Your task to perform on an android device: Open the map Image 0: 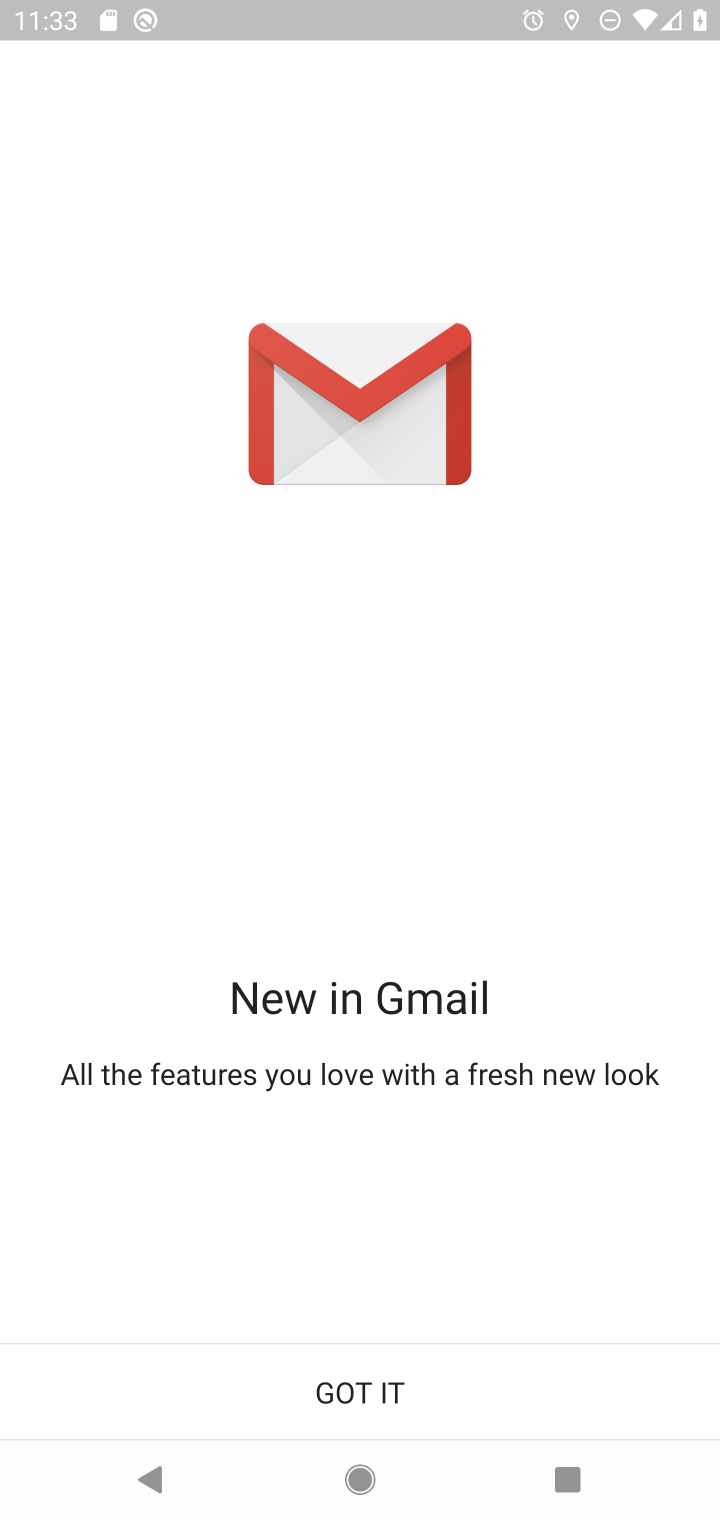
Step 0: press back button
Your task to perform on an android device: Open the map Image 1: 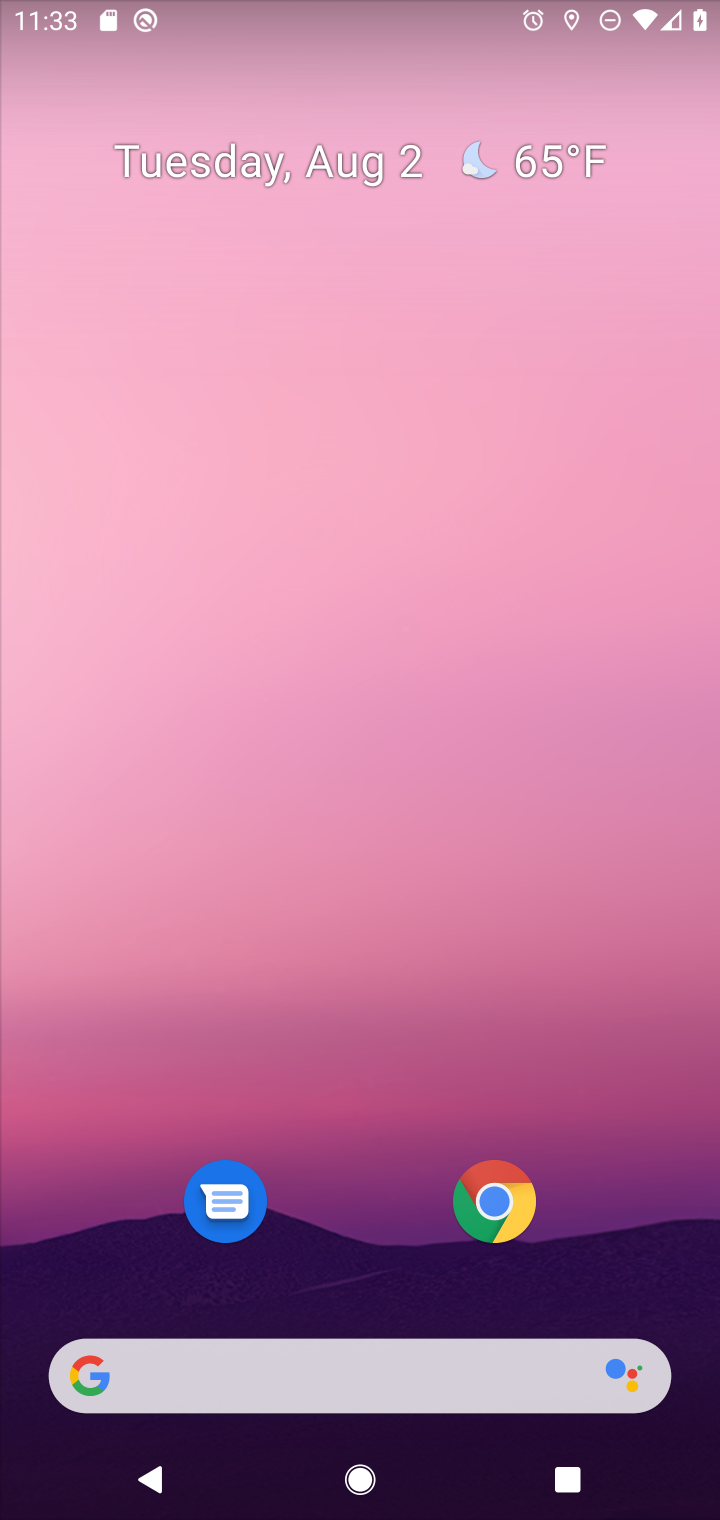
Step 1: drag from (414, 1334) to (345, 238)
Your task to perform on an android device: Open the map Image 2: 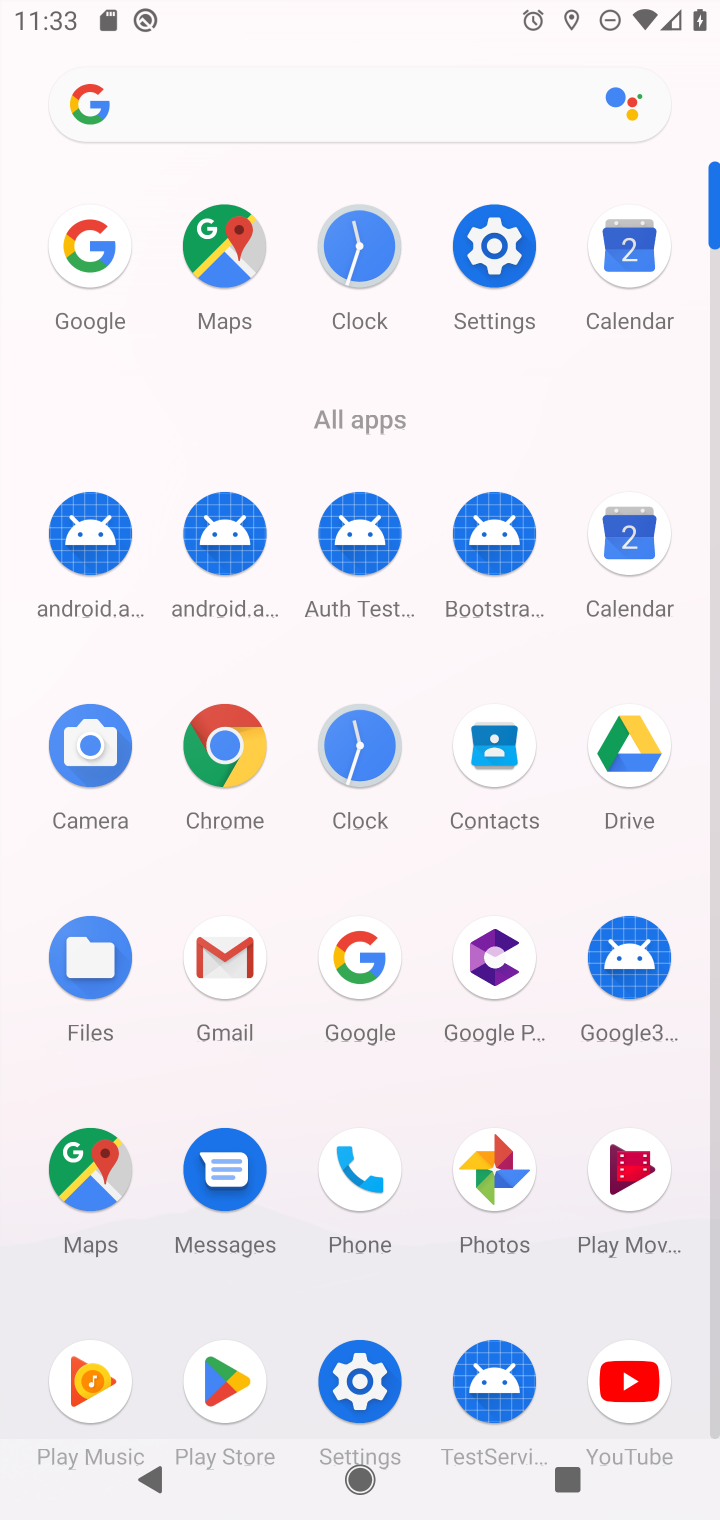
Step 2: click (53, 1165)
Your task to perform on an android device: Open the map Image 3: 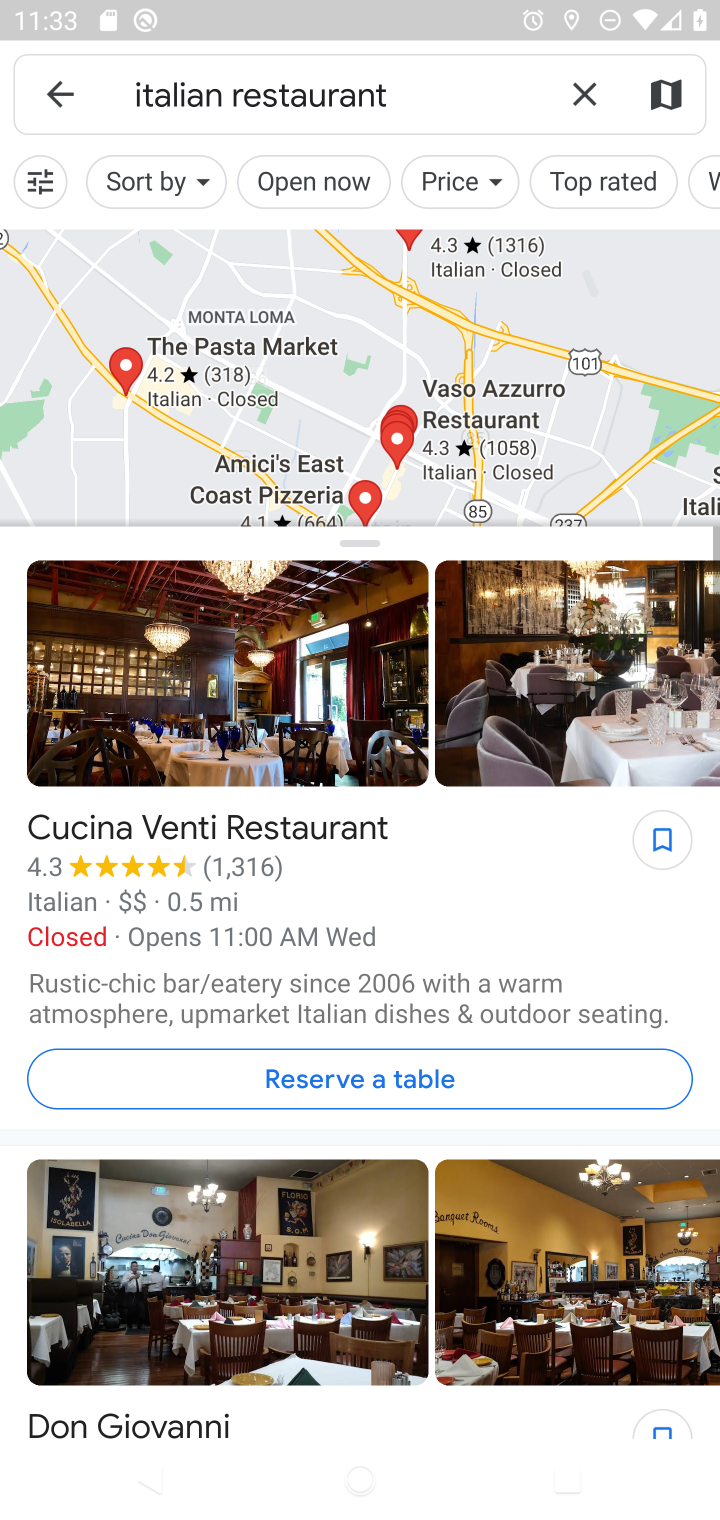
Step 3: click (40, 105)
Your task to perform on an android device: Open the map Image 4: 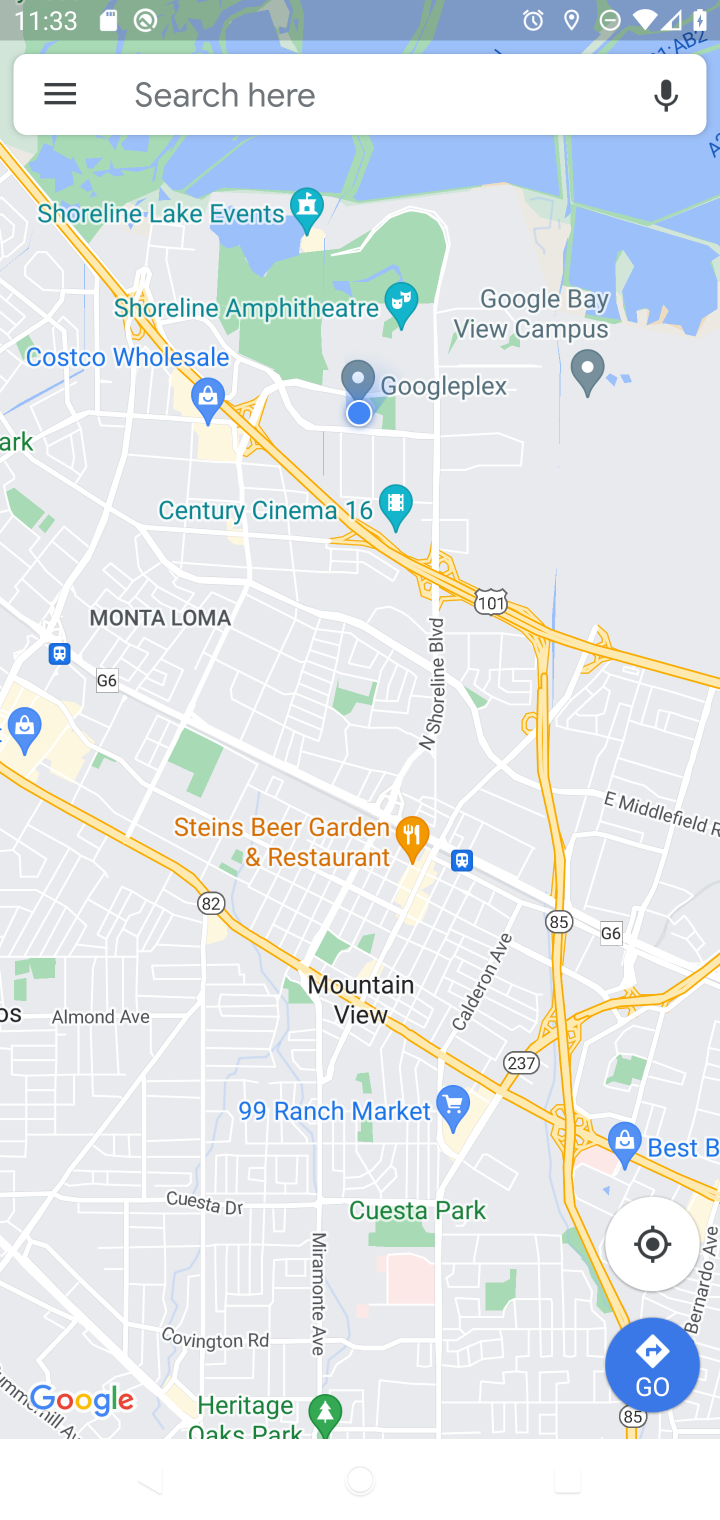
Step 4: task complete